Your task to perform on an android device: View the shopping cart on amazon. Image 0: 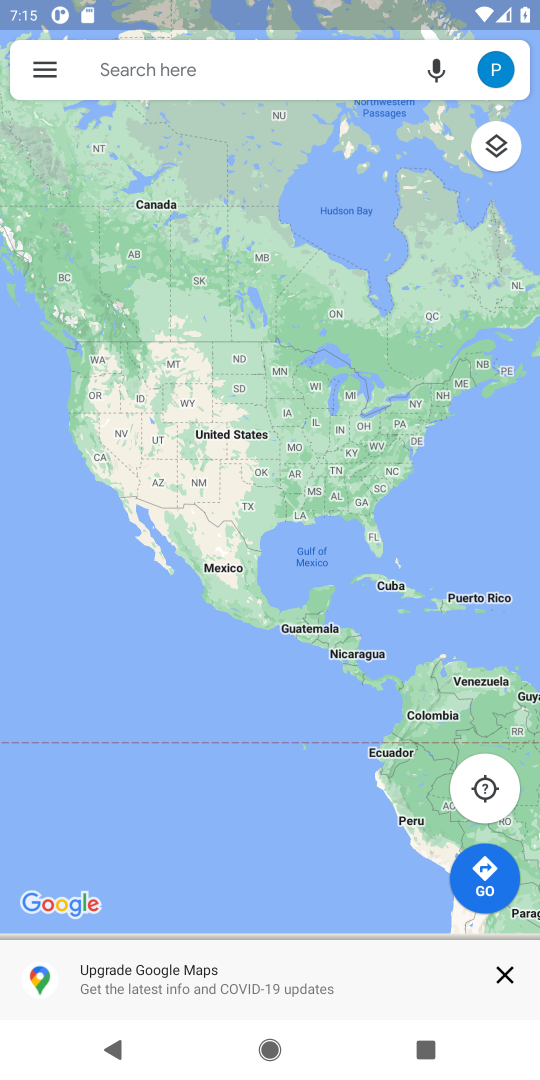
Step 0: press home button
Your task to perform on an android device: View the shopping cart on amazon. Image 1: 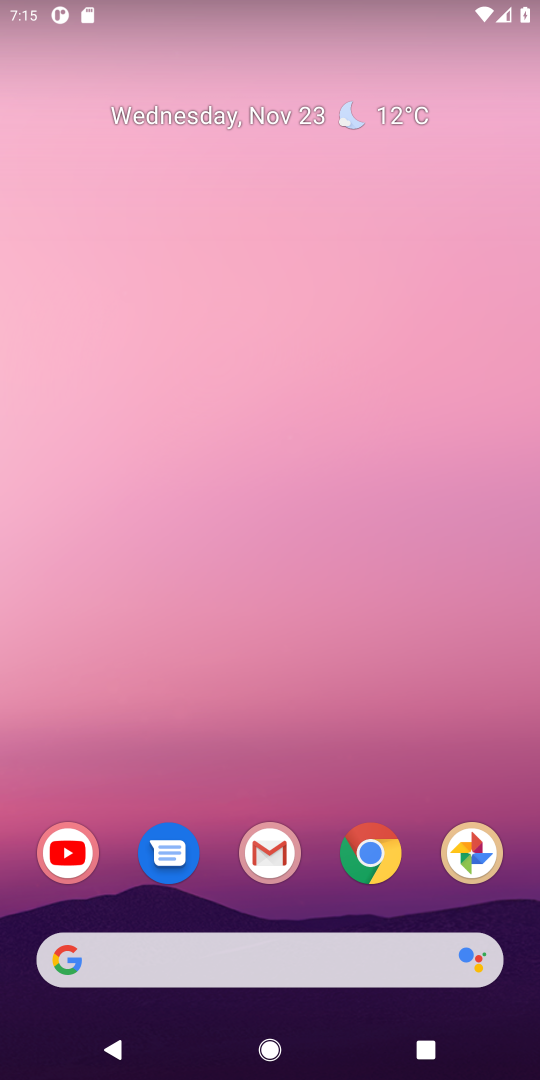
Step 1: click (373, 848)
Your task to perform on an android device: View the shopping cart on amazon. Image 2: 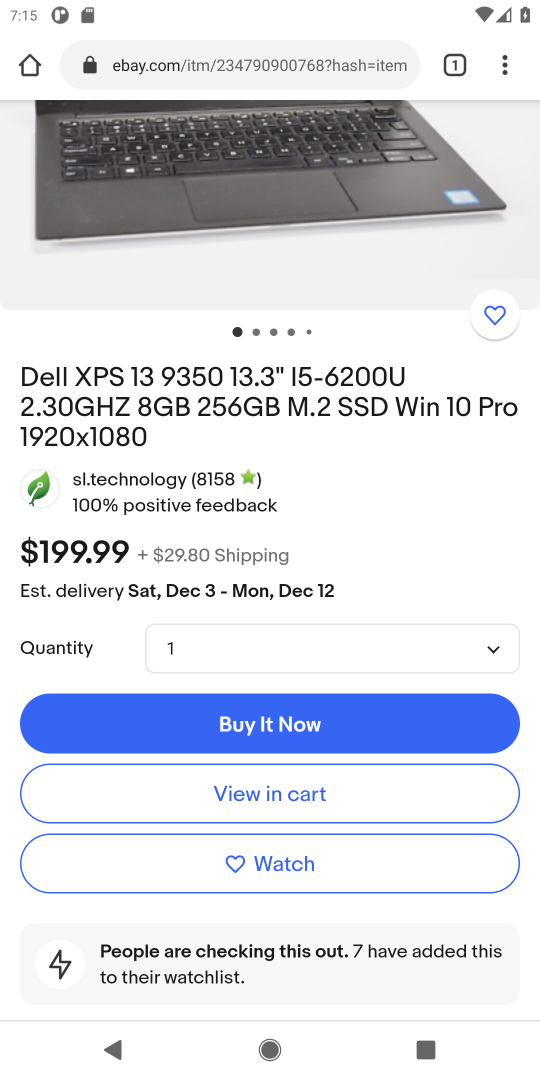
Step 2: click (191, 74)
Your task to perform on an android device: View the shopping cart on amazon. Image 3: 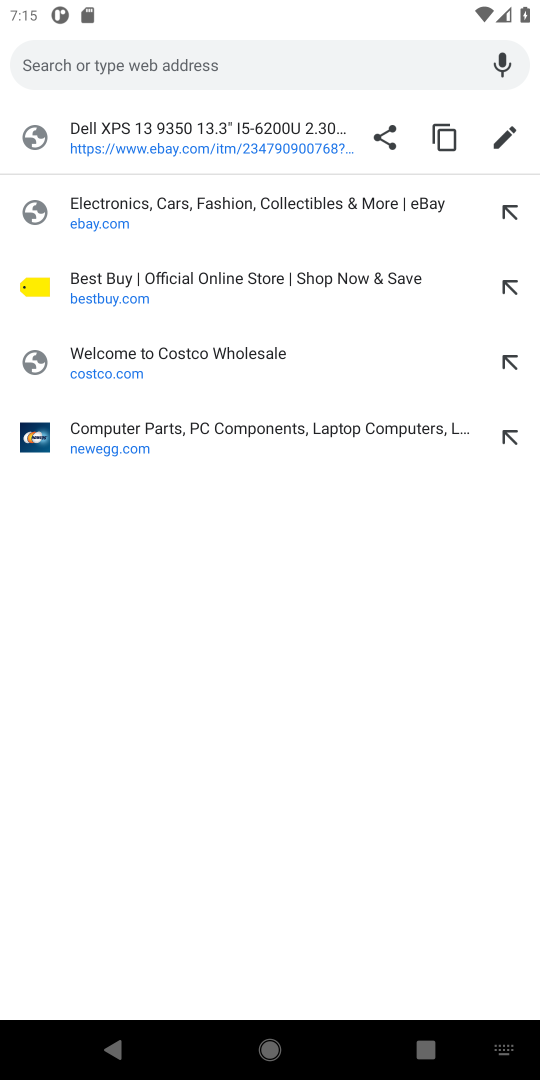
Step 3: type "amazon.com"
Your task to perform on an android device: View the shopping cart on amazon. Image 4: 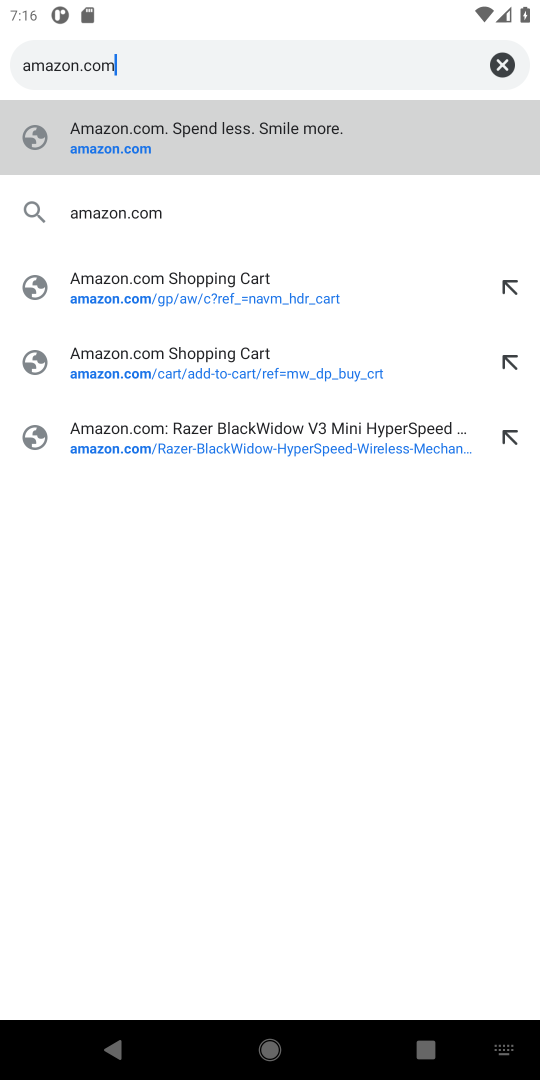
Step 4: click (93, 147)
Your task to perform on an android device: View the shopping cart on amazon. Image 5: 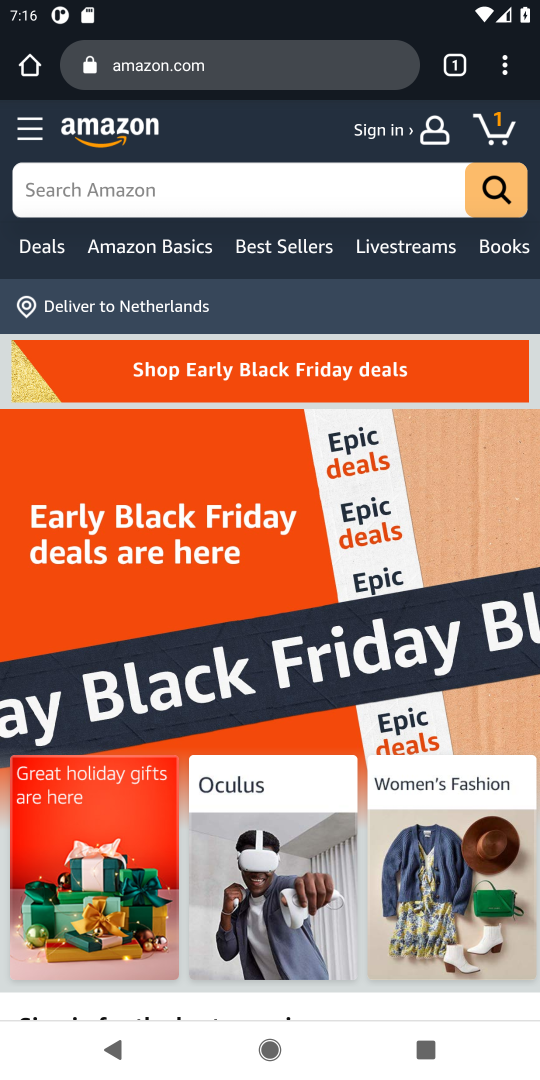
Step 5: click (497, 126)
Your task to perform on an android device: View the shopping cart on amazon. Image 6: 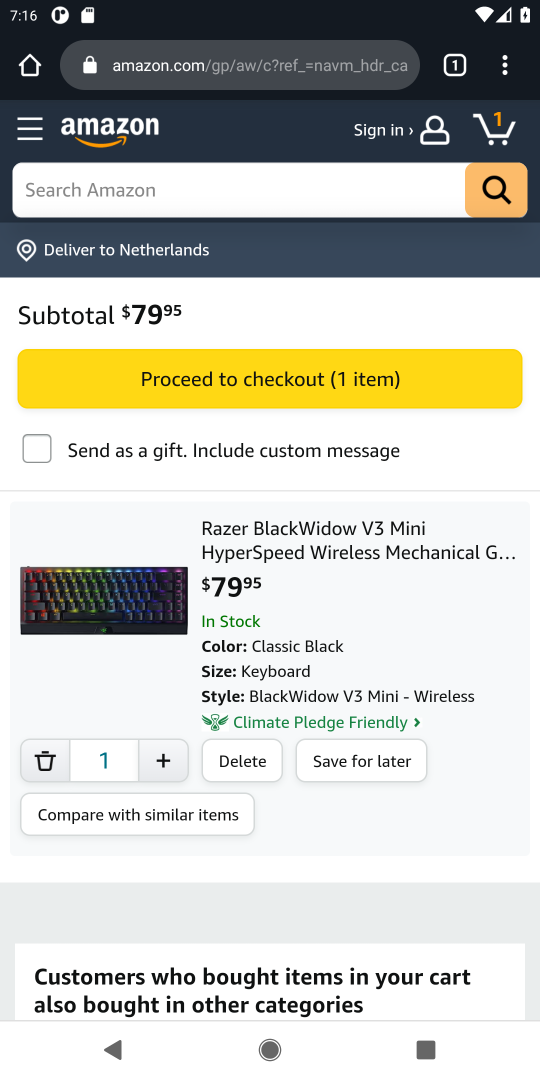
Step 6: task complete